Your task to perform on an android device: See recent photos Image 0: 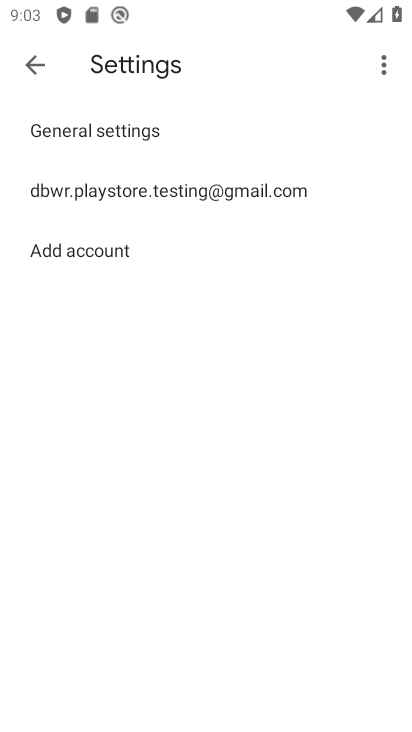
Step 0: click (190, 531)
Your task to perform on an android device: See recent photos Image 1: 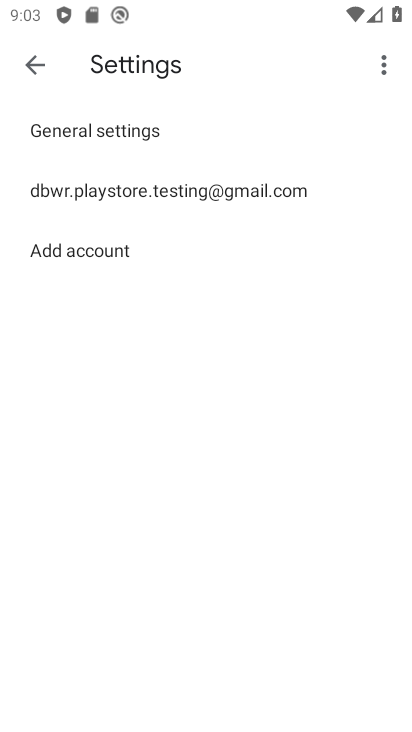
Step 1: press home button
Your task to perform on an android device: See recent photos Image 2: 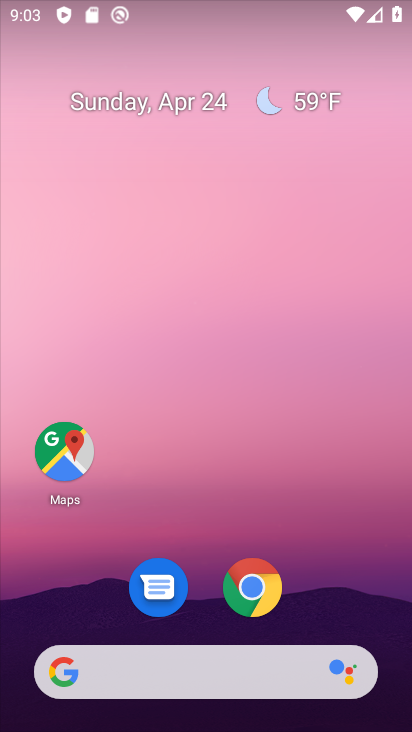
Step 2: drag from (182, 495) to (237, 3)
Your task to perform on an android device: See recent photos Image 3: 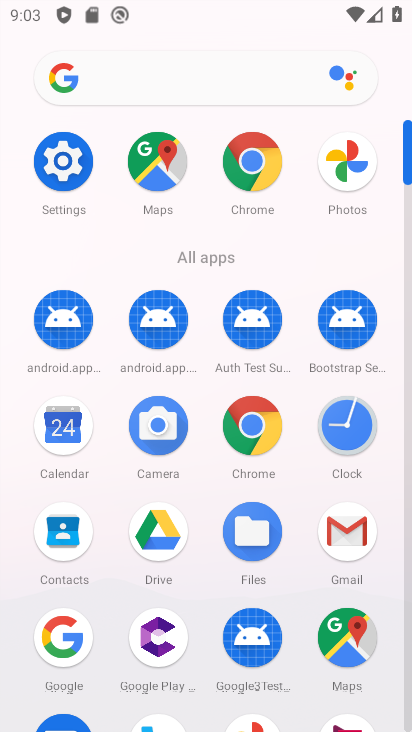
Step 3: click (344, 161)
Your task to perform on an android device: See recent photos Image 4: 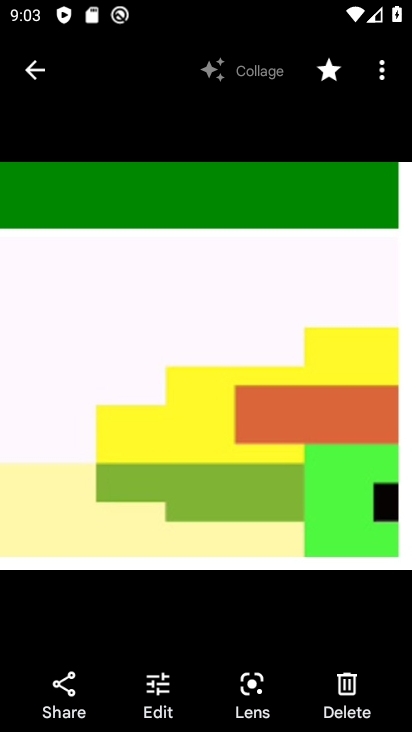
Step 4: press back button
Your task to perform on an android device: See recent photos Image 5: 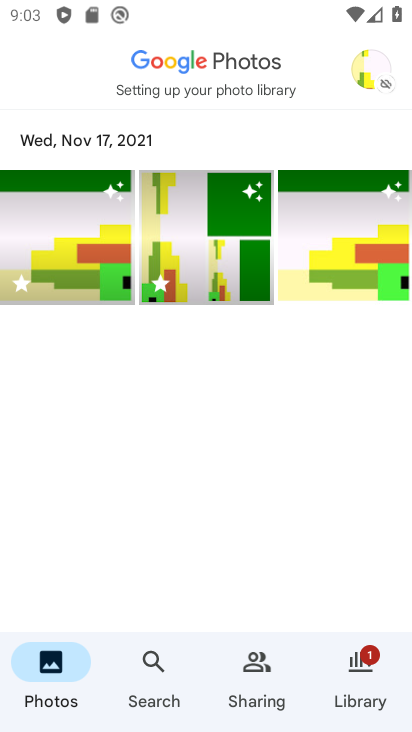
Step 5: click (101, 242)
Your task to perform on an android device: See recent photos Image 6: 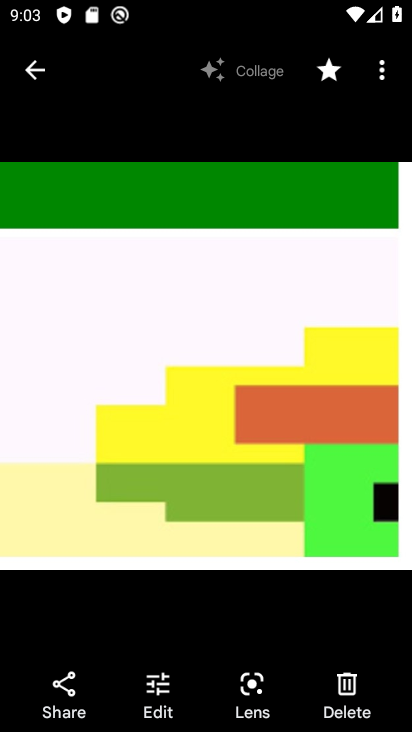
Step 6: task complete